Your task to perform on an android device: Open accessibility settings Image 0: 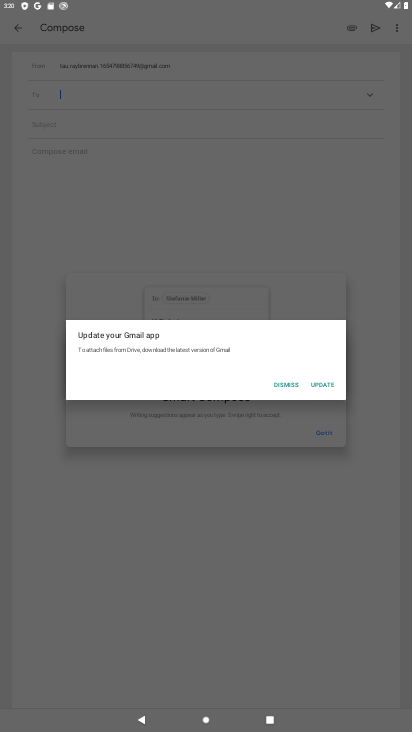
Step 0: press home button
Your task to perform on an android device: Open accessibility settings Image 1: 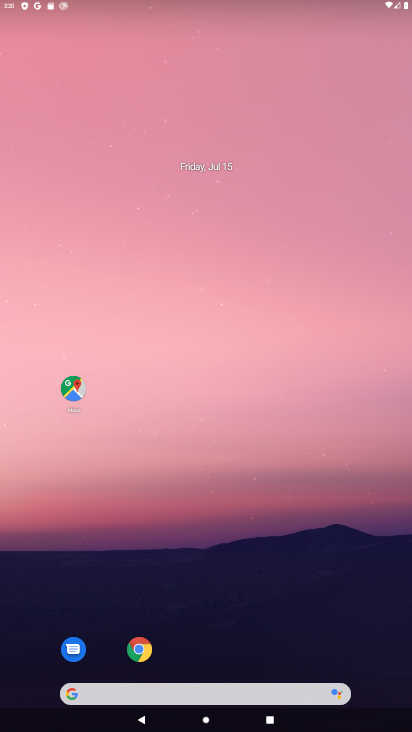
Step 1: drag from (206, 637) to (212, 152)
Your task to perform on an android device: Open accessibility settings Image 2: 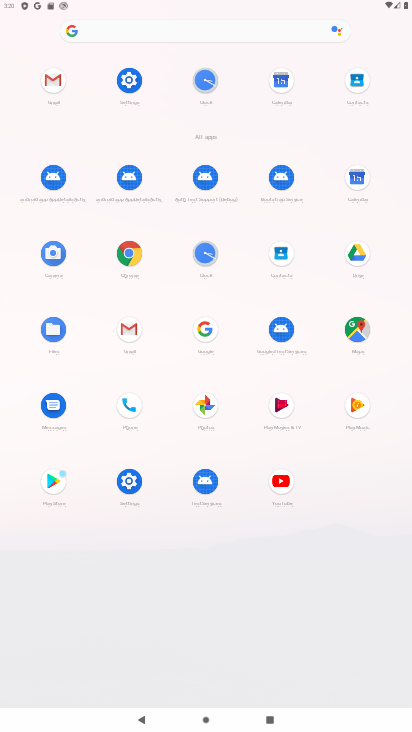
Step 2: click (132, 85)
Your task to perform on an android device: Open accessibility settings Image 3: 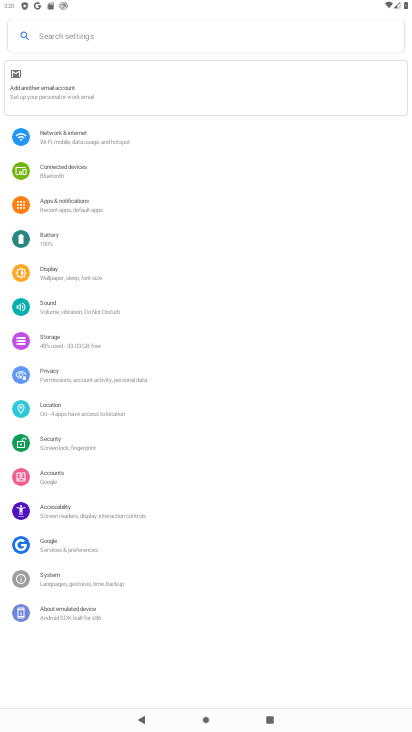
Step 3: click (100, 513)
Your task to perform on an android device: Open accessibility settings Image 4: 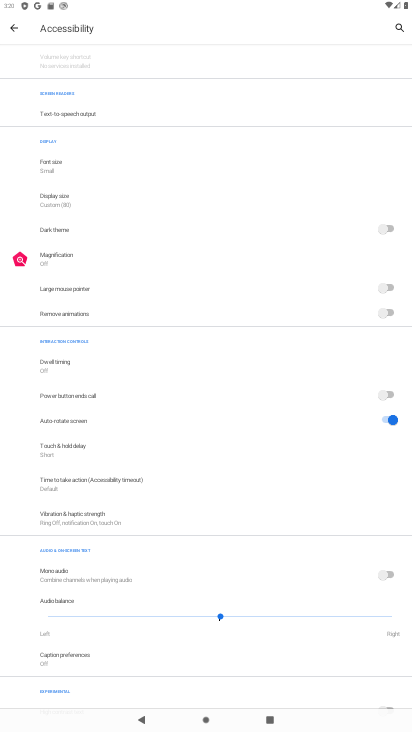
Step 4: task complete